Your task to perform on an android device: create a new album in the google photos Image 0: 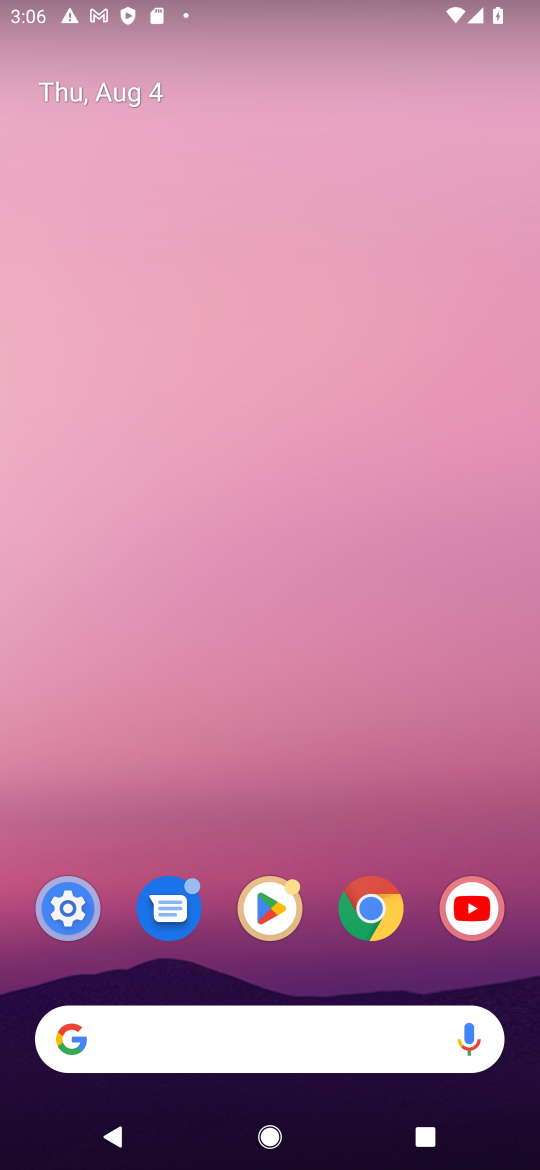
Step 0: drag from (202, 699) to (171, 91)
Your task to perform on an android device: create a new album in the google photos Image 1: 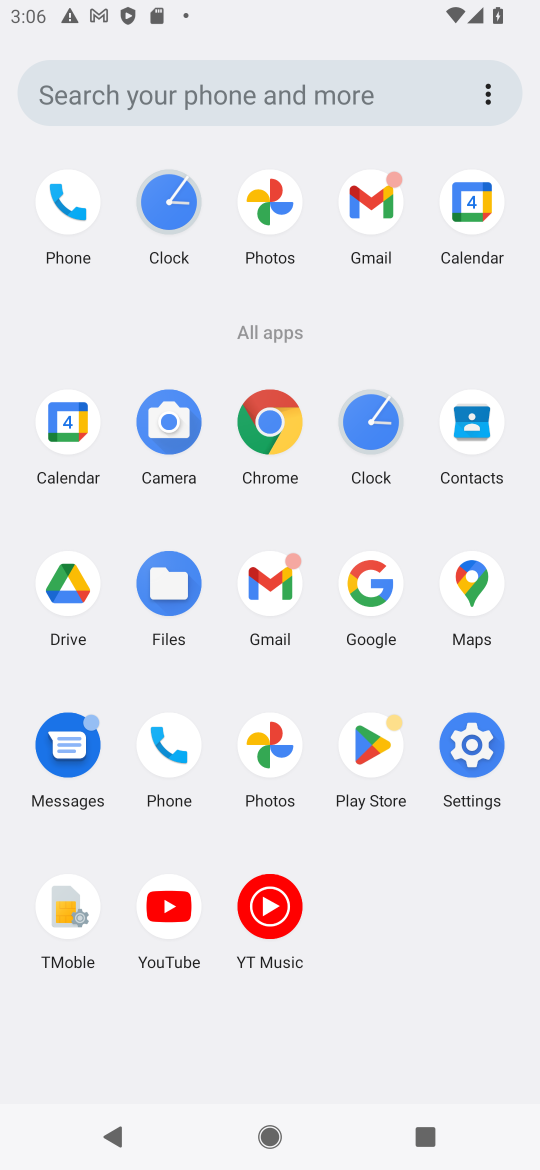
Step 1: click (286, 735)
Your task to perform on an android device: create a new album in the google photos Image 2: 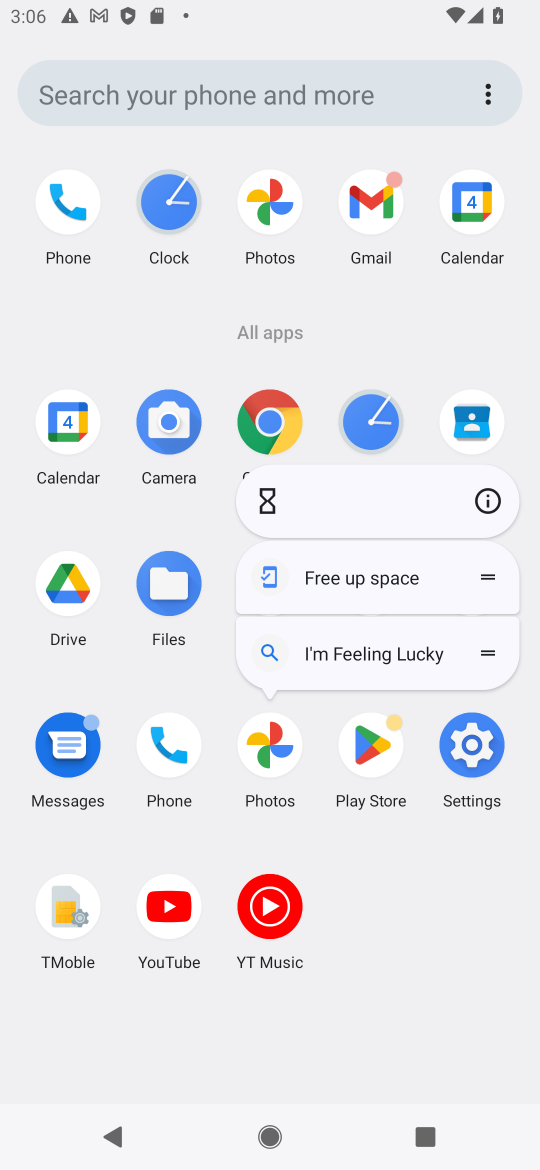
Step 2: click (247, 757)
Your task to perform on an android device: create a new album in the google photos Image 3: 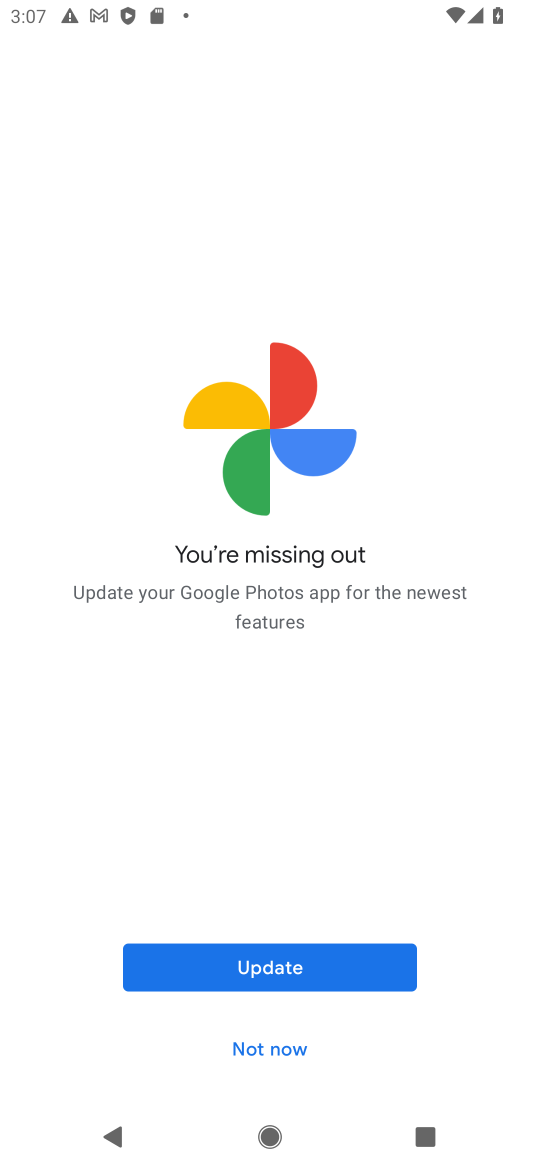
Step 3: click (322, 962)
Your task to perform on an android device: create a new album in the google photos Image 4: 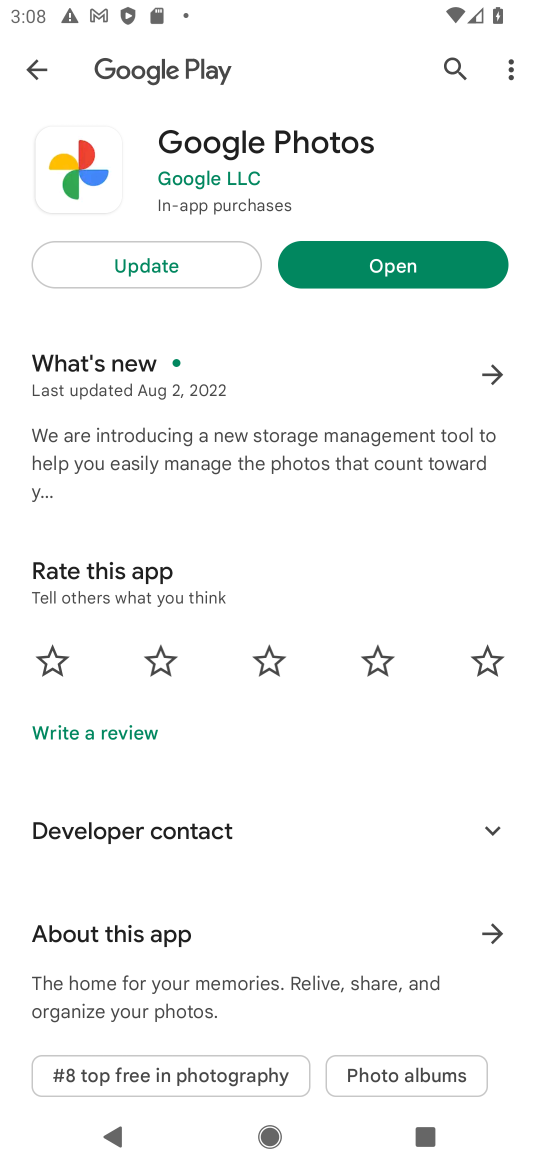
Step 4: click (464, 276)
Your task to perform on an android device: create a new album in the google photos Image 5: 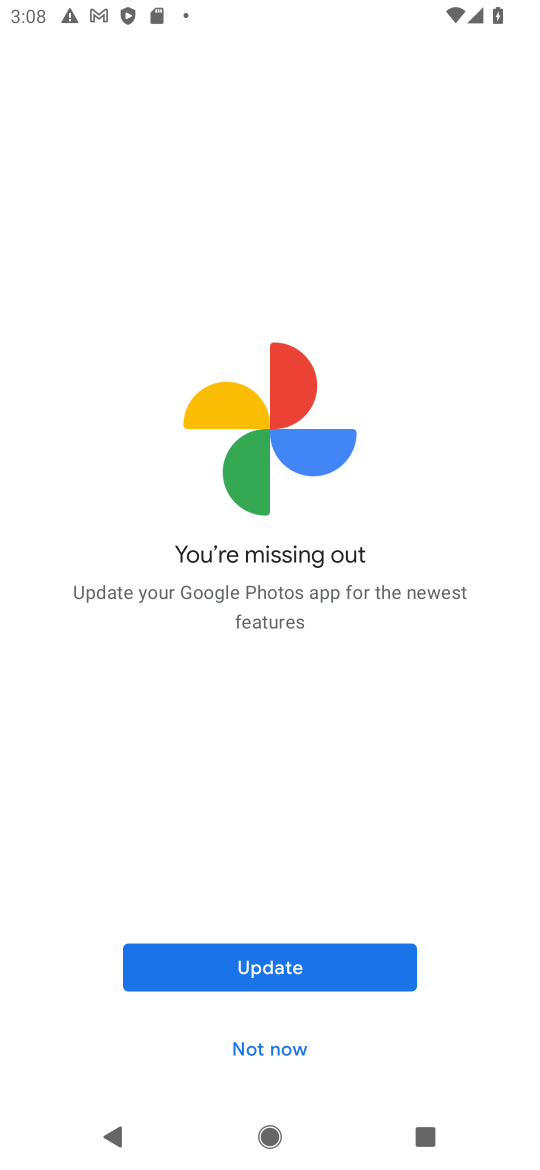
Step 5: click (248, 968)
Your task to perform on an android device: create a new album in the google photos Image 6: 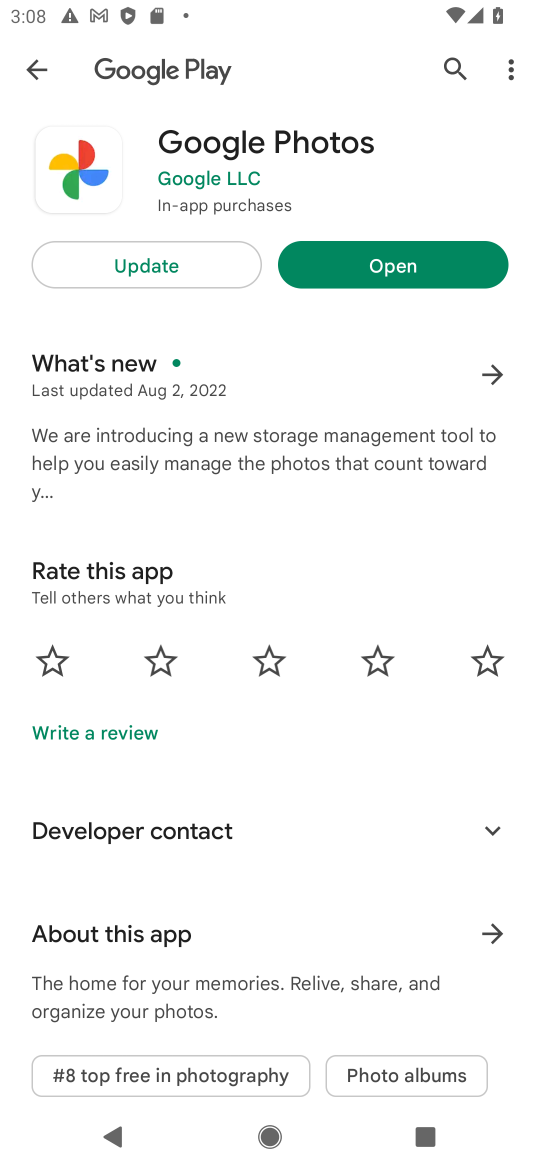
Step 6: click (156, 274)
Your task to perform on an android device: create a new album in the google photos Image 7: 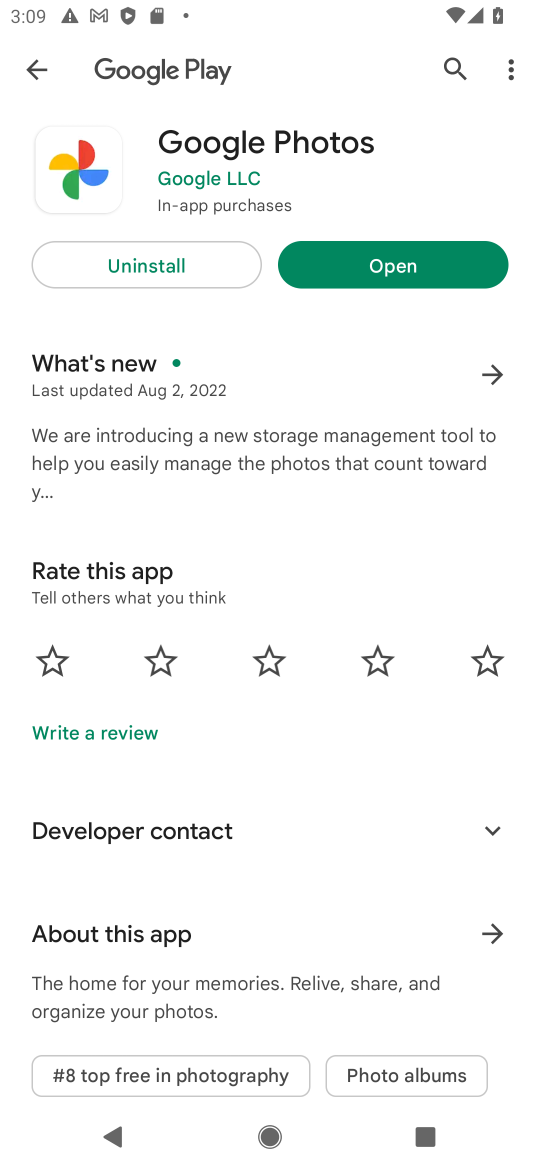
Step 7: click (391, 260)
Your task to perform on an android device: create a new album in the google photos Image 8: 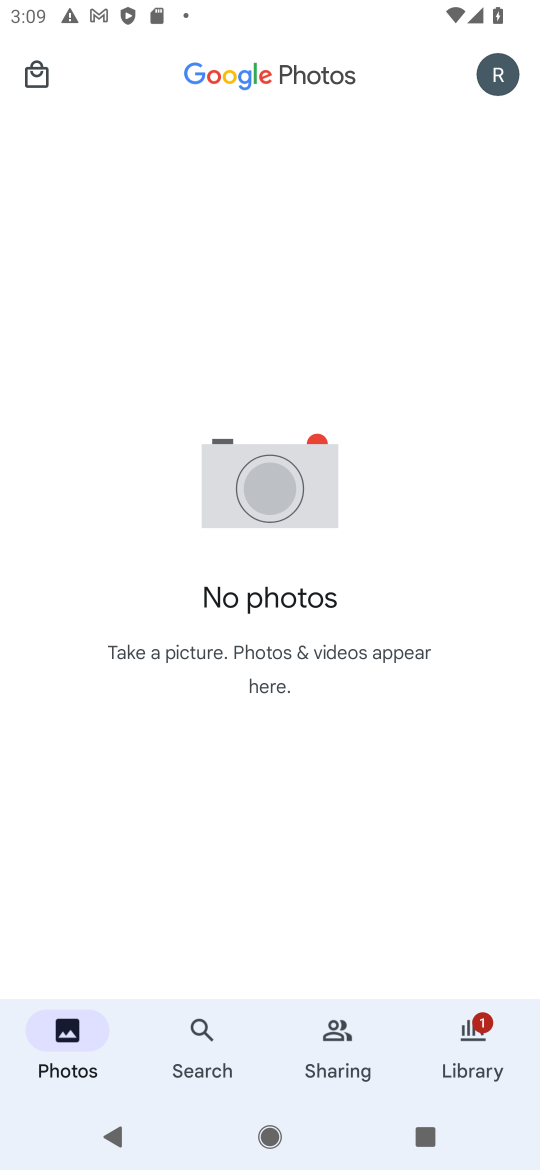
Step 8: task complete